Your task to perform on an android device: Open ESPN.com Image 0: 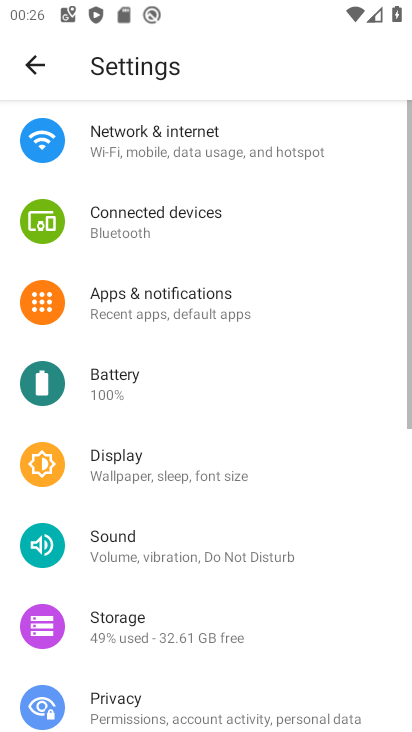
Step 0: press home button
Your task to perform on an android device: Open ESPN.com Image 1: 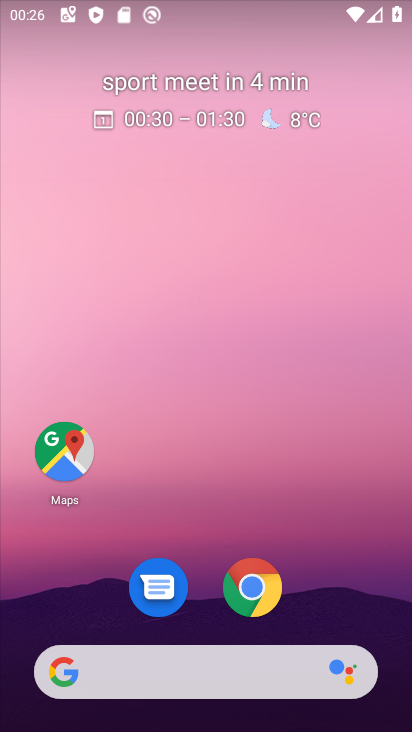
Step 1: click (258, 583)
Your task to perform on an android device: Open ESPN.com Image 2: 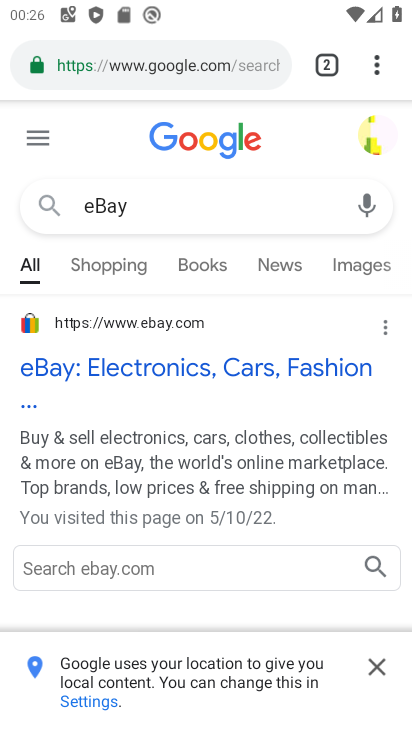
Step 2: click (158, 206)
Your task to perform on an android device: Open ESPN.com Image 3: 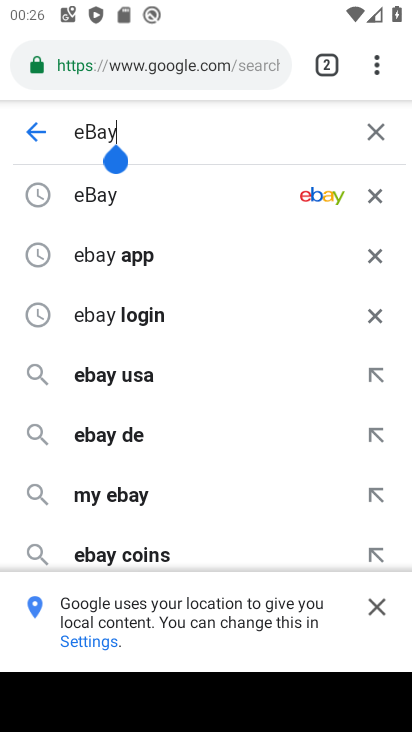
Step 3: click (279, 57)
Your task to perform on an android device: Open ESPN.com Image 4: 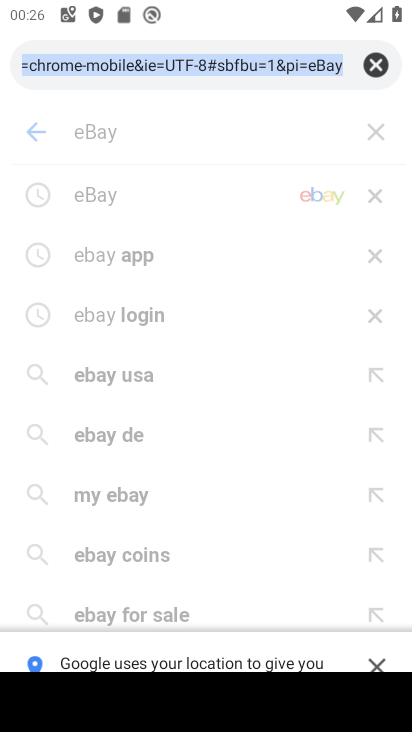
Step 4: click (369, 67)
Your task to perform on an android device: Open ESPN.com Image 5: 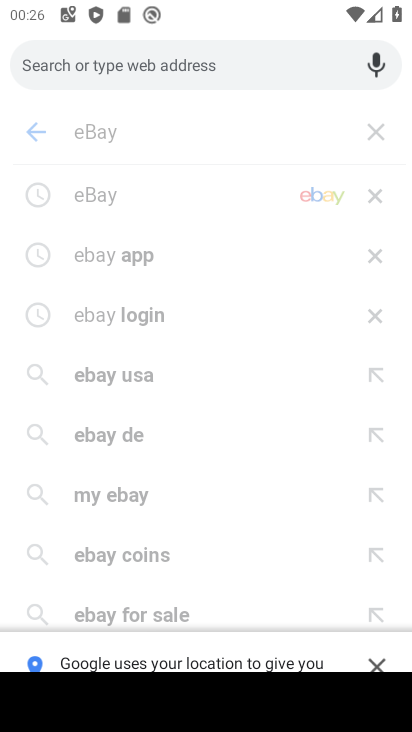
Step 5: type "ESPN.com"
Your task to perform on an android device: Open ESPN.com Image 6: 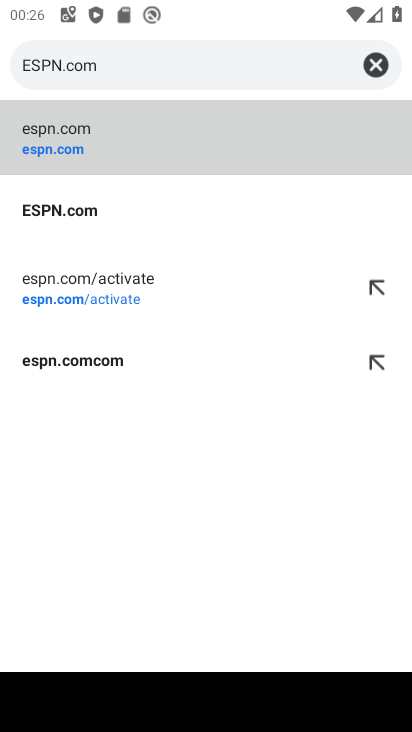
Step 6: click (46, 209)
Your task to perform on an android device: Open ESPN.com Image 7: 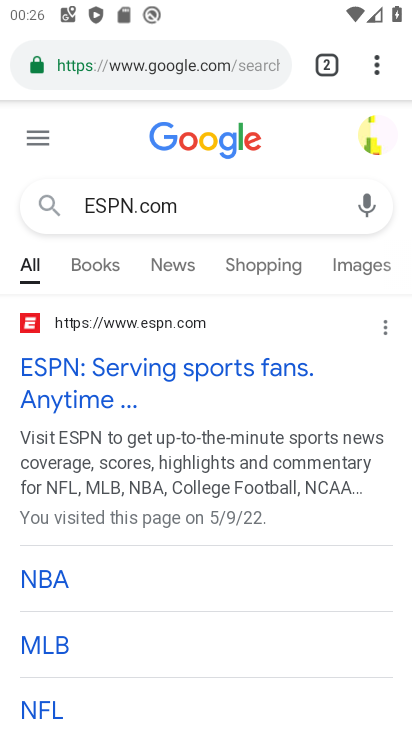
Step 7: task complete